Your task to perform on an android device: Go to Google maps Image 0: 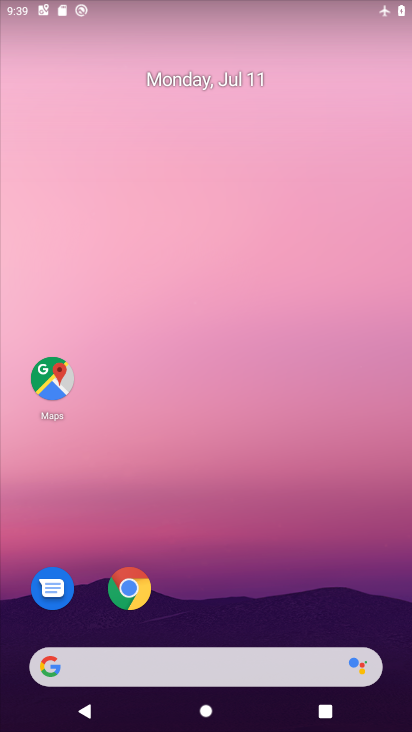
Step 0: drag from (262, 639) to (238, 180)
Your task to perform on an android device: Go to Google maps Image 1: 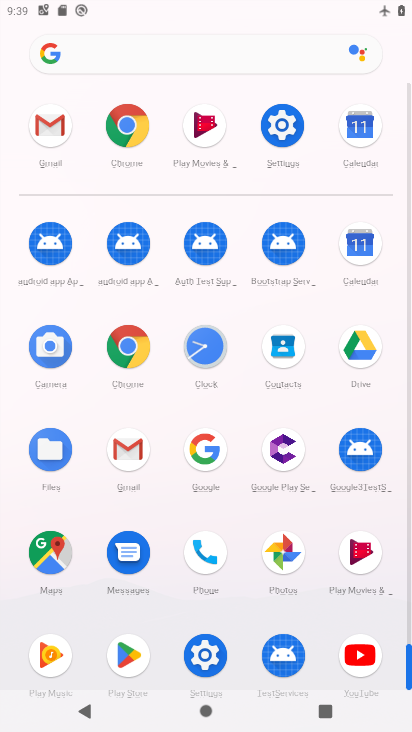
Step 1: click (51, 536)
Your task to perform on an android device: Go to Google maps Image 2: 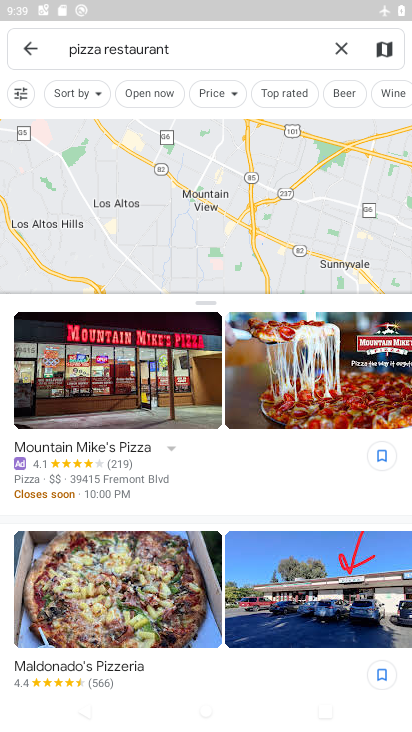
Step 2: task complete